Your task to perform on an android device: uninstall "Google Chat" Image 0: 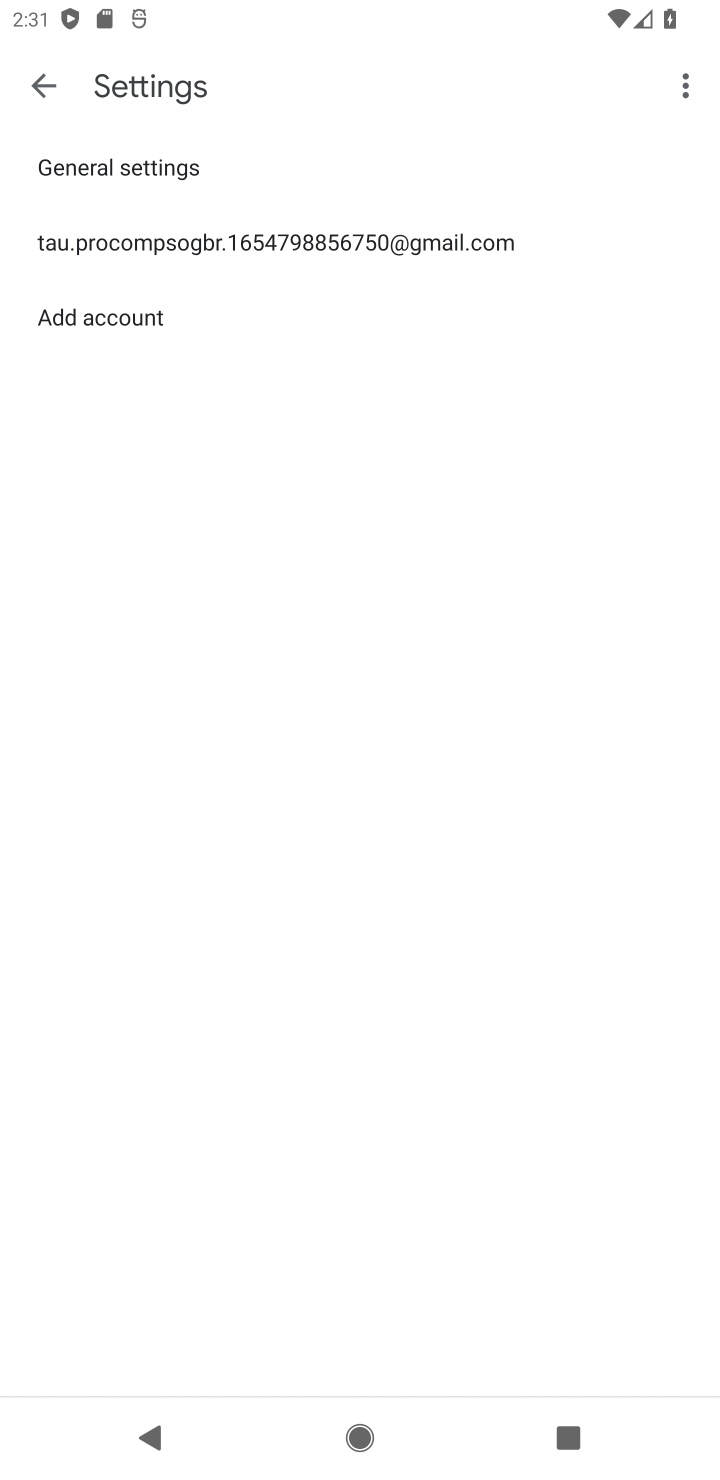
Step 0: press home button
Your task to perform on an android device: uninstall "Google Chat" Image 1: 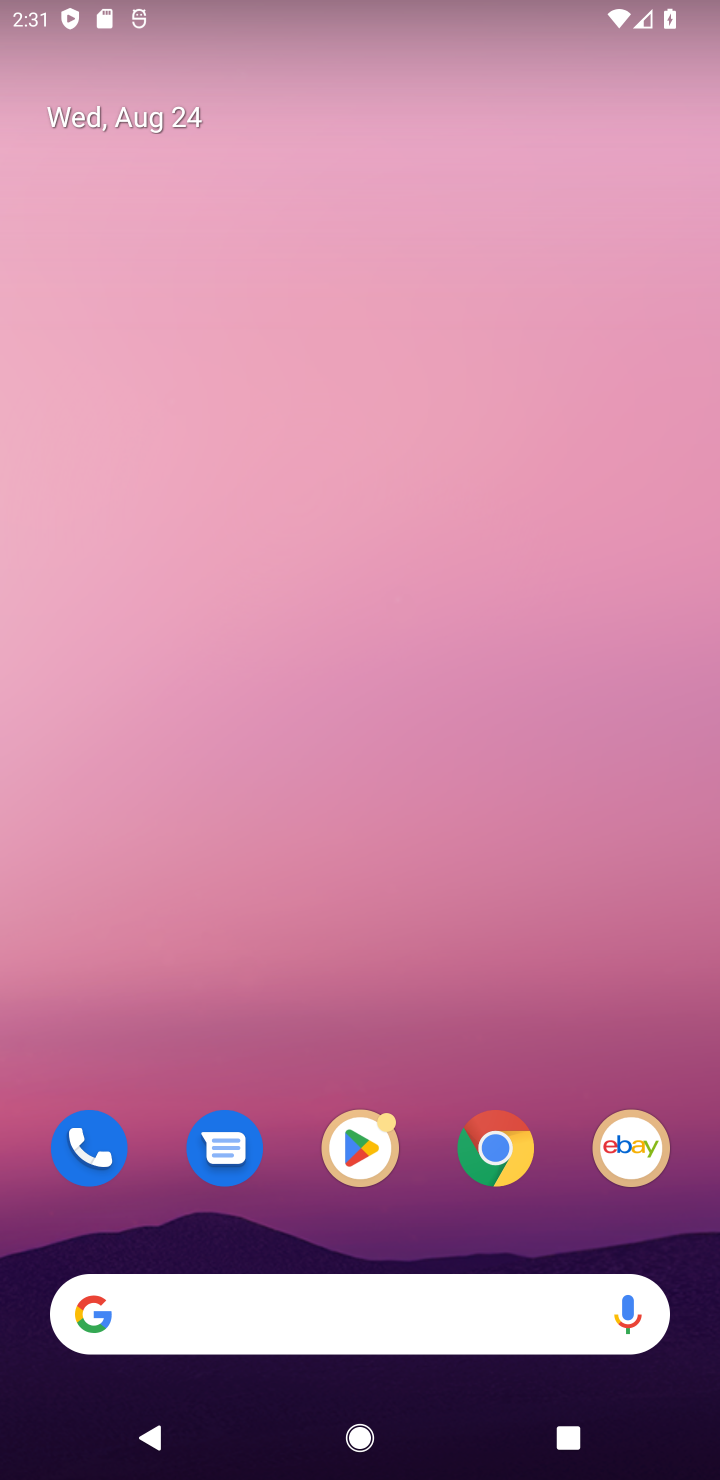
Step 1: drag from (402, 1238) to (539, 305)
Your task to perform on an android device: uninstall "Google Chat" Image 2: 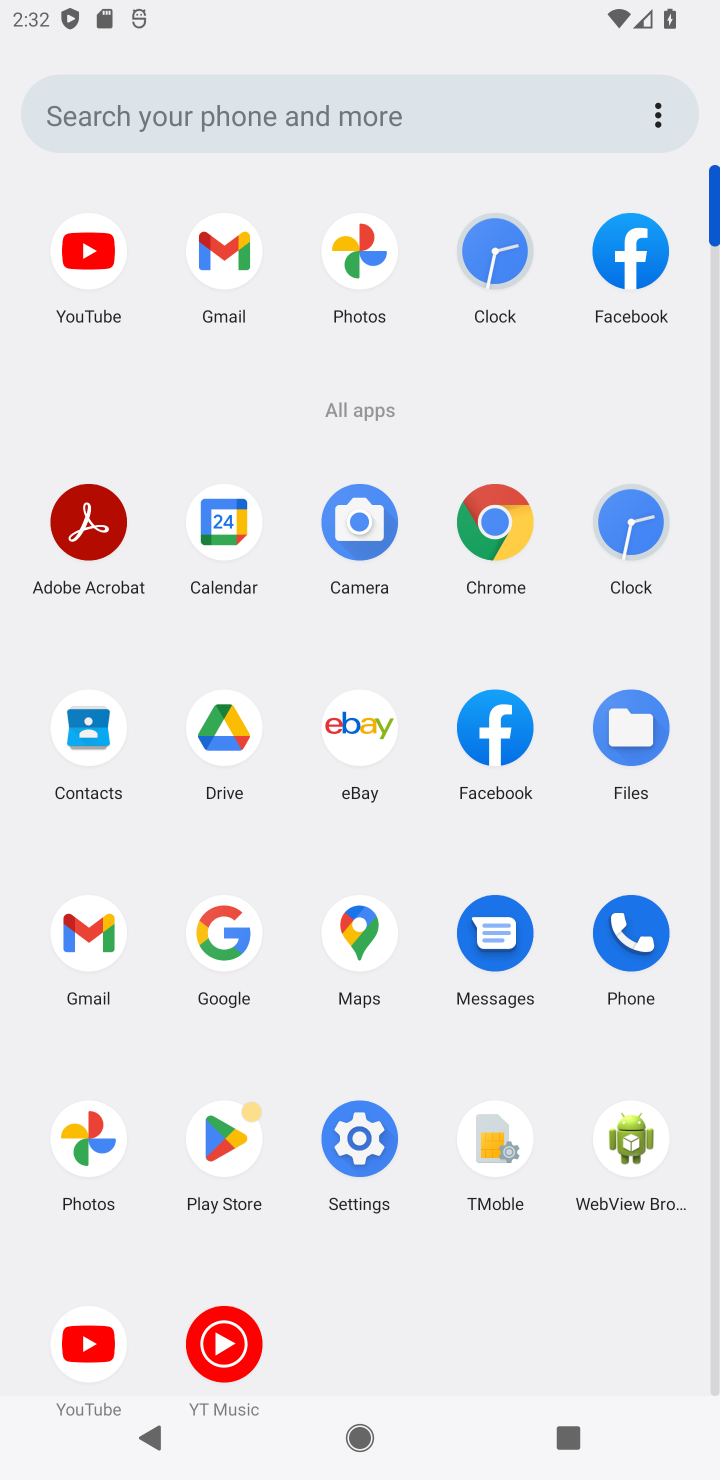
Step 2: click (230, 1161)
Your task to perform on an android device: uninstall "Google Chat" Image 3: 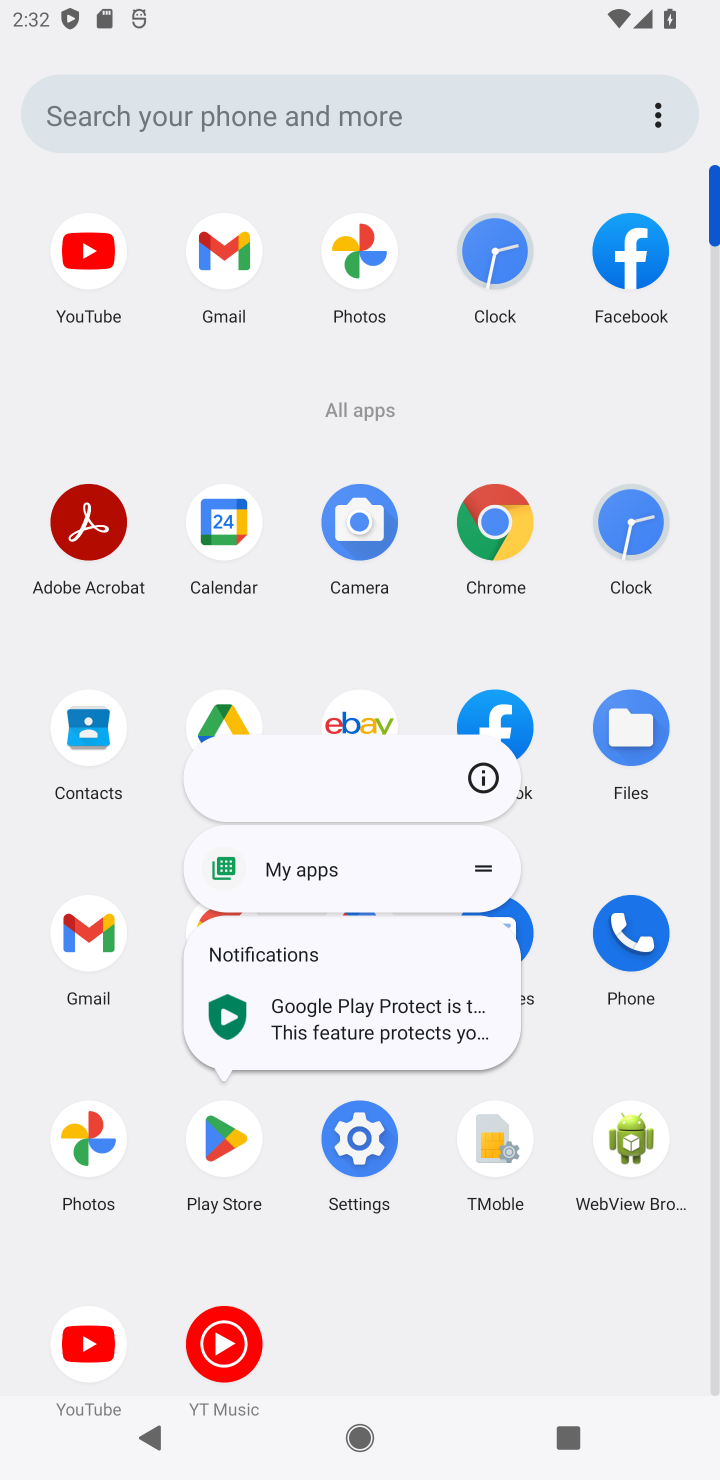
Step 3: click (351, 714)
Your task to perform on an android device: uninstall "Google Chat" Image 4: 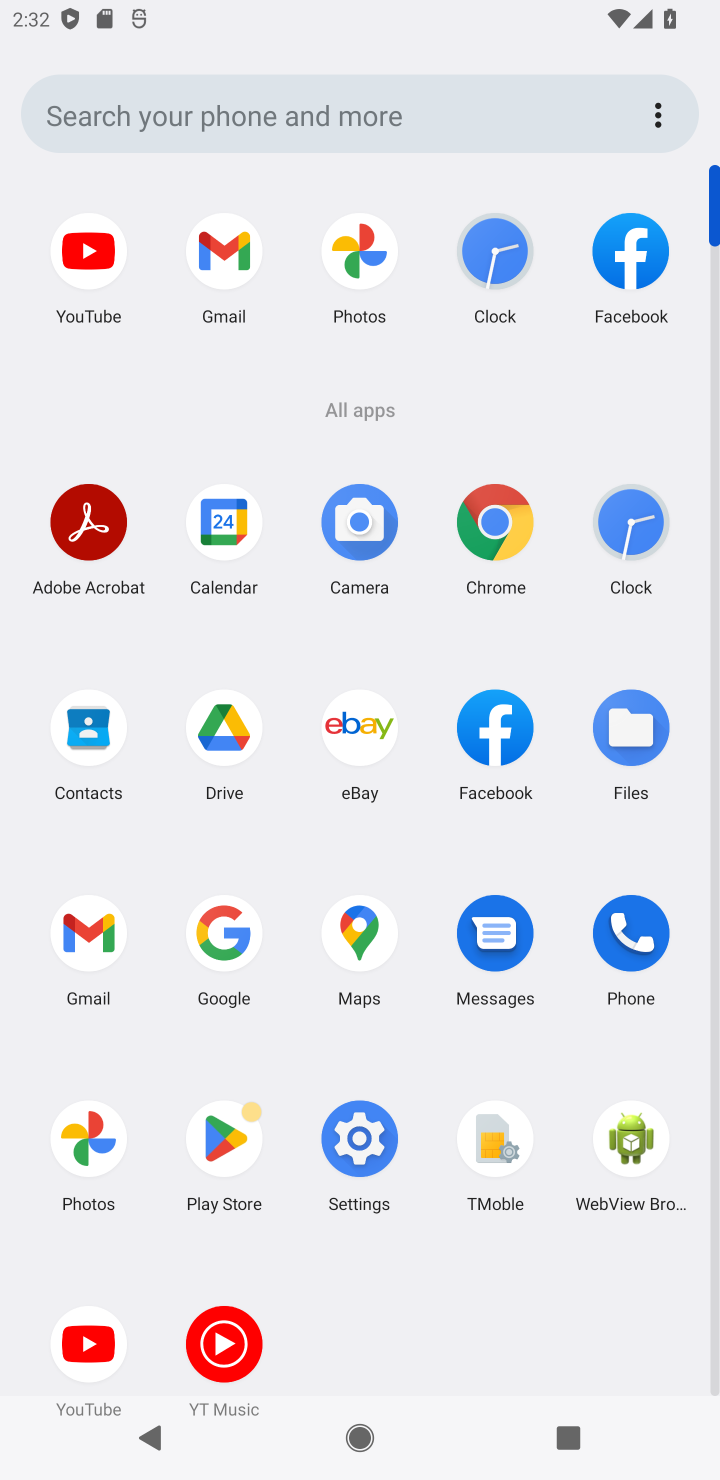
Step 4: click (351, 714)
Your task to perform on an android device: uninstall "Google Chat" Image 5: 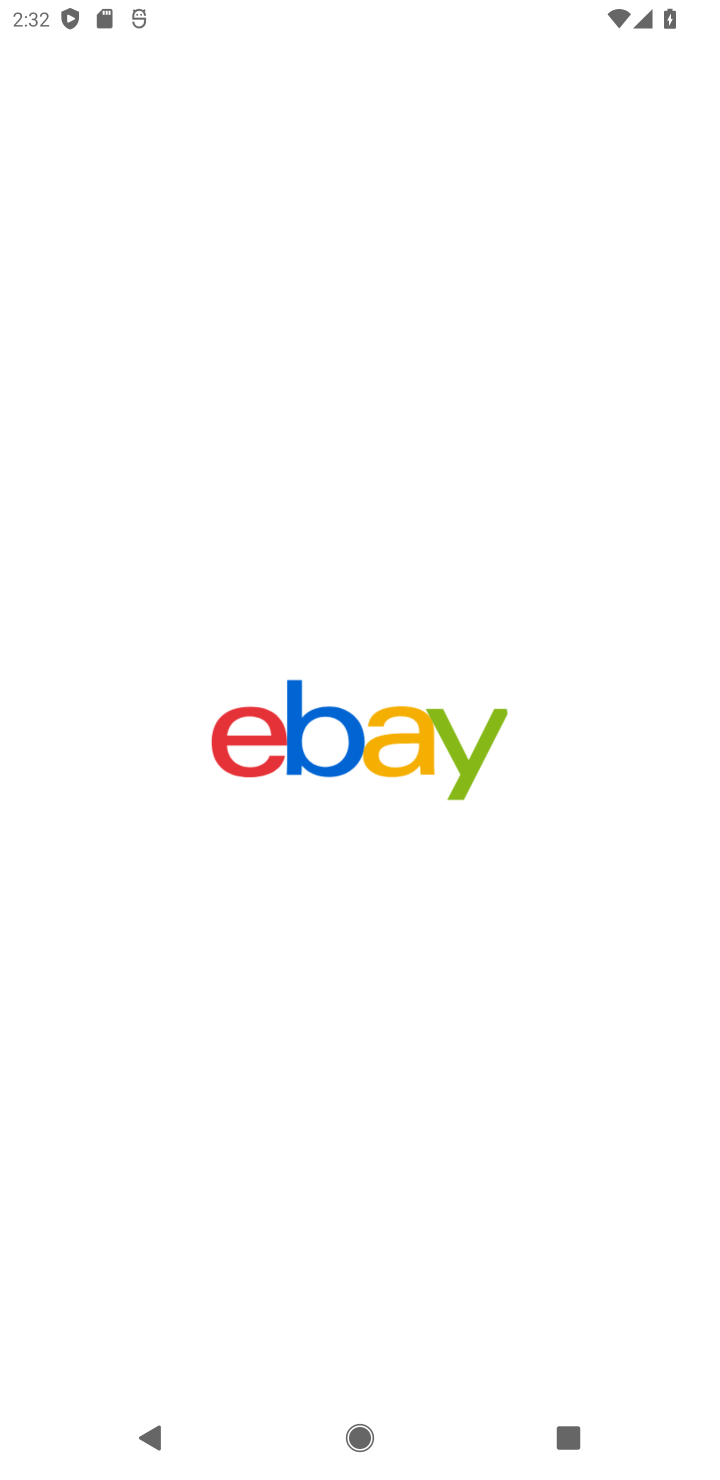
Step 5: press home button
Your task to perform on an android device: uninstall "Google Chat" Image 6: 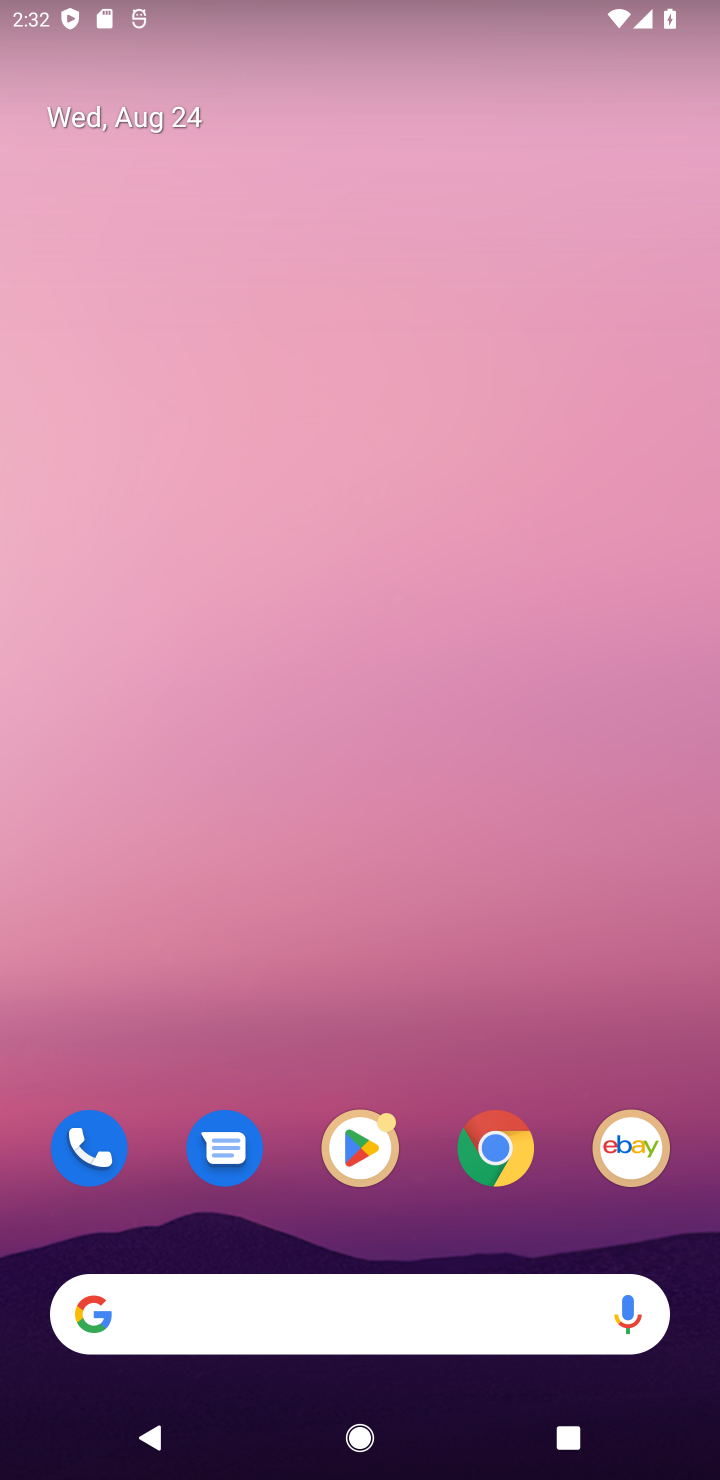
Step 6: click (335, 269)
Your task to perform on an android device: uninstall "Google Chat" Image 7: 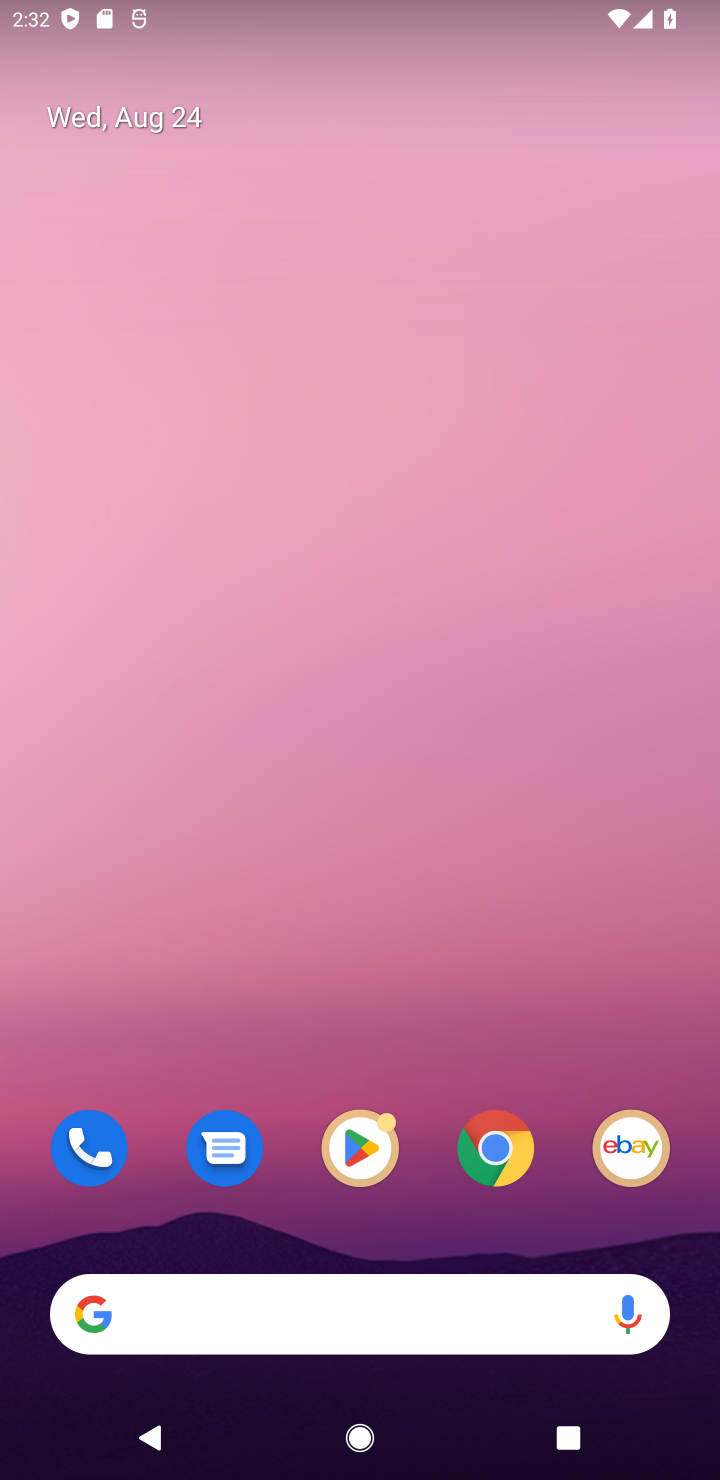
Step 7: click (319, 274)
Your task to perform on an android device: uninstall "Google Chat" Image 8: 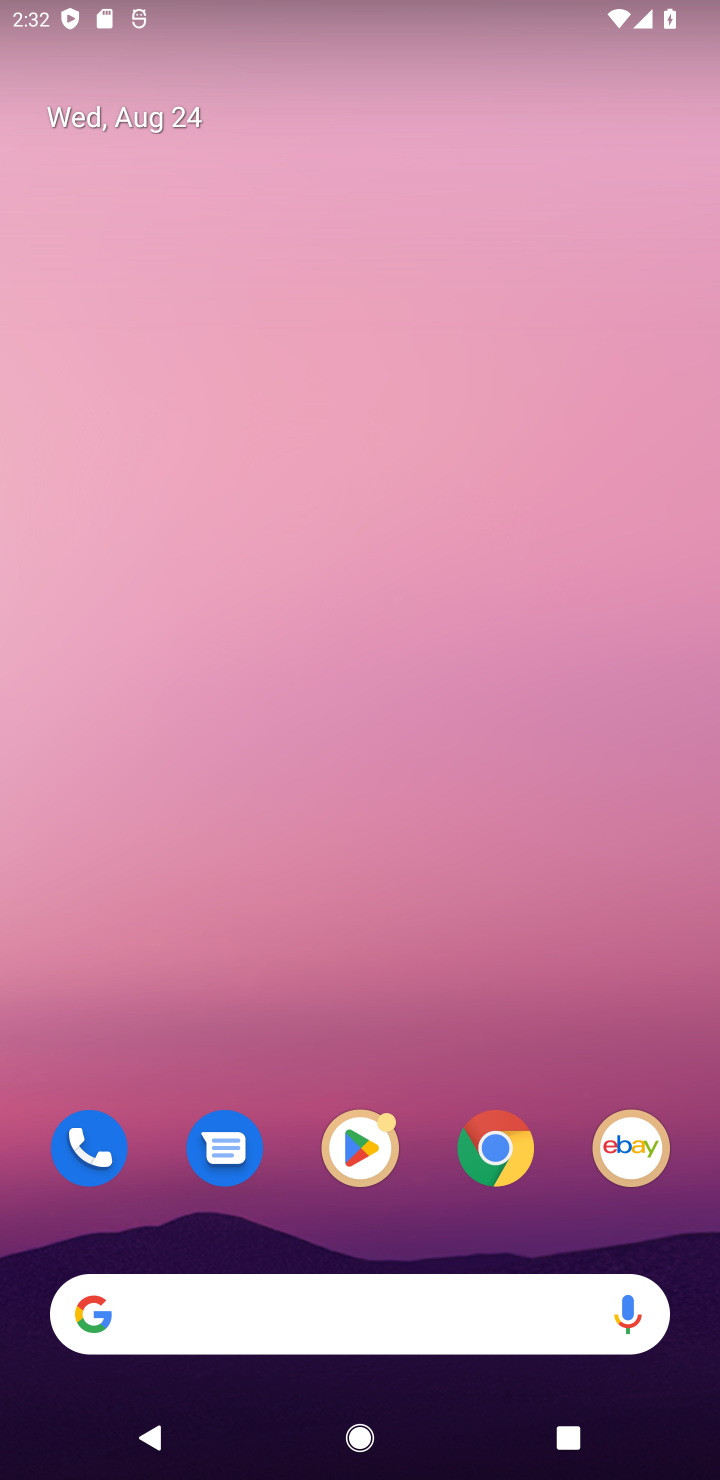
Step 8: drag from (263, 1233) to (288, 327)
Your task to perform on an android device: uninstall "Google Chat" Image 9: 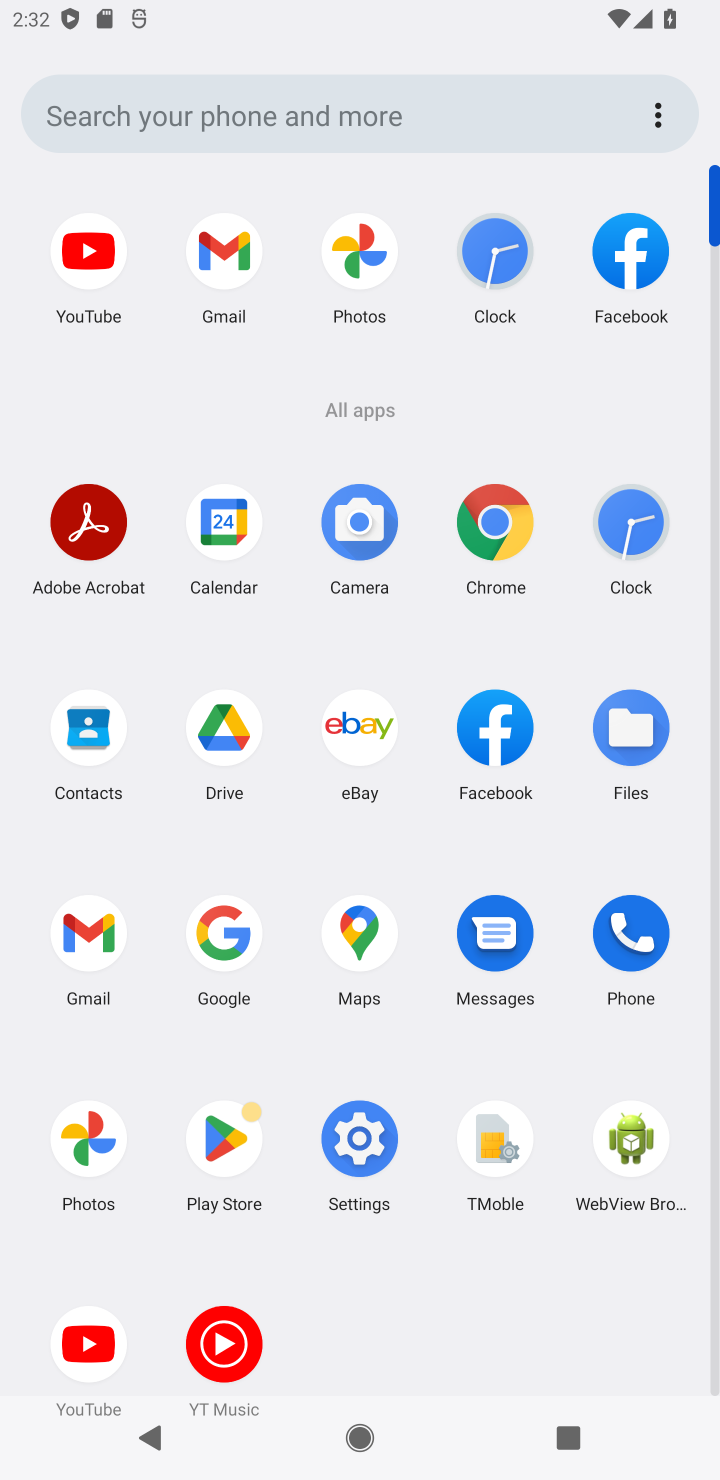
Step 9: click (214, 1126)
Your task to perform on an android device: uninstall "Google Chat" Image 10: 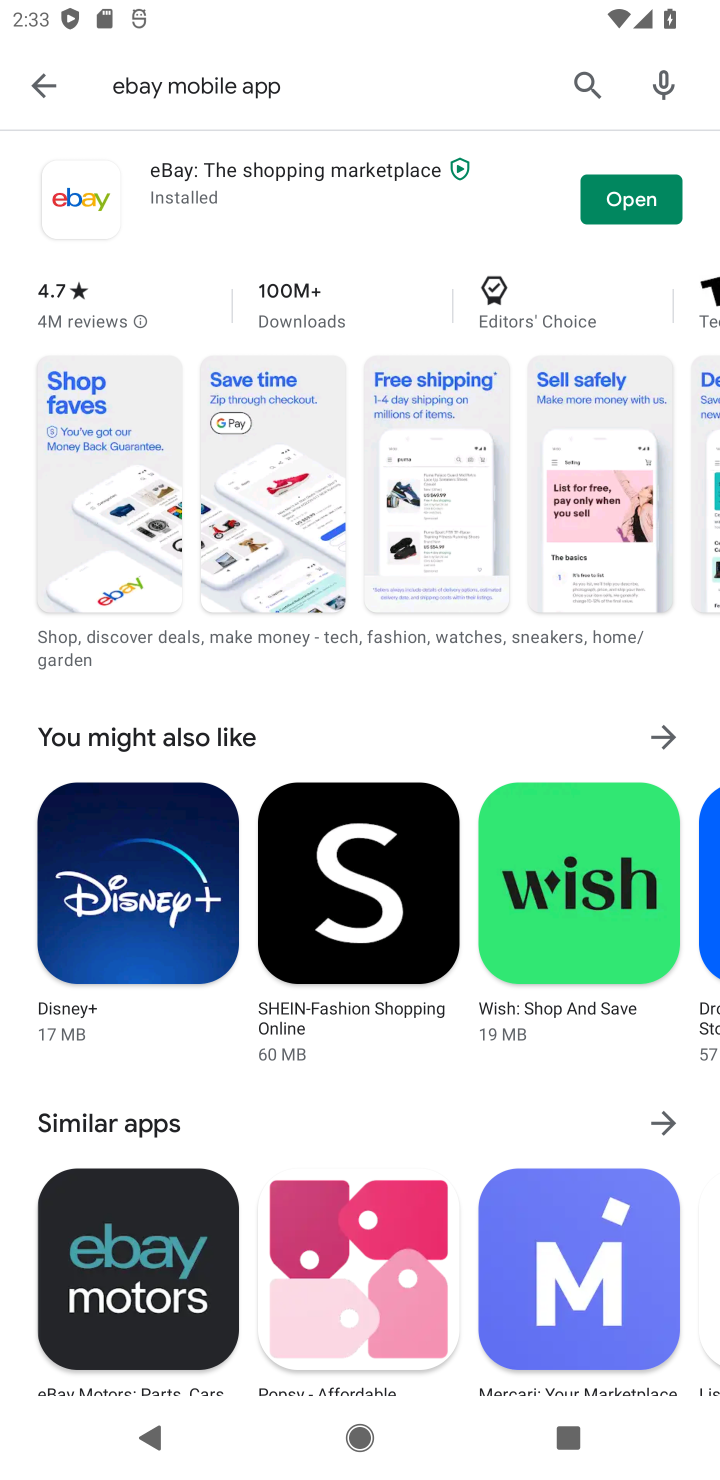
Step 10: click (24, 81)
Your task to perform on an android device: uninstall "Google Chat" Image 11: 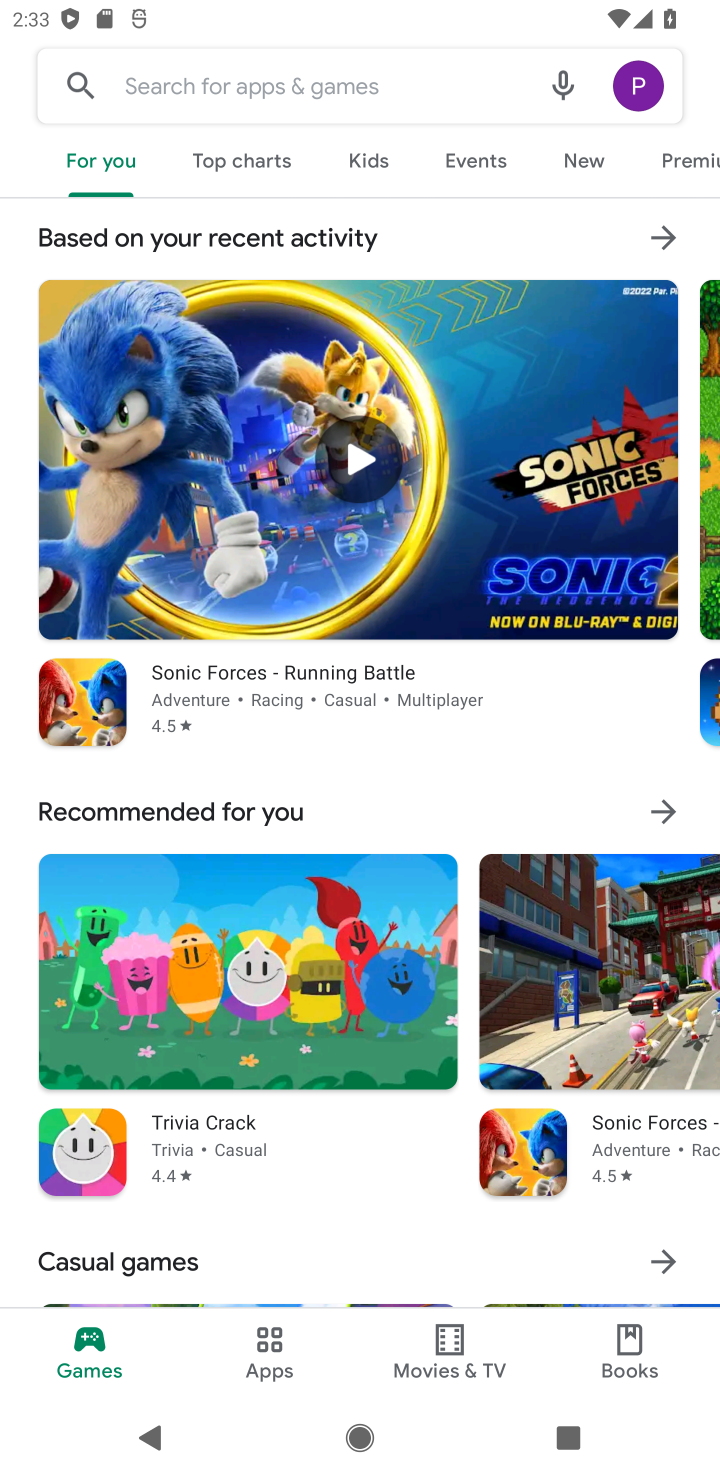
Step 11: click (439, 61)
Your task to perform on an android device: uninstall "Google Chat" Image 12: 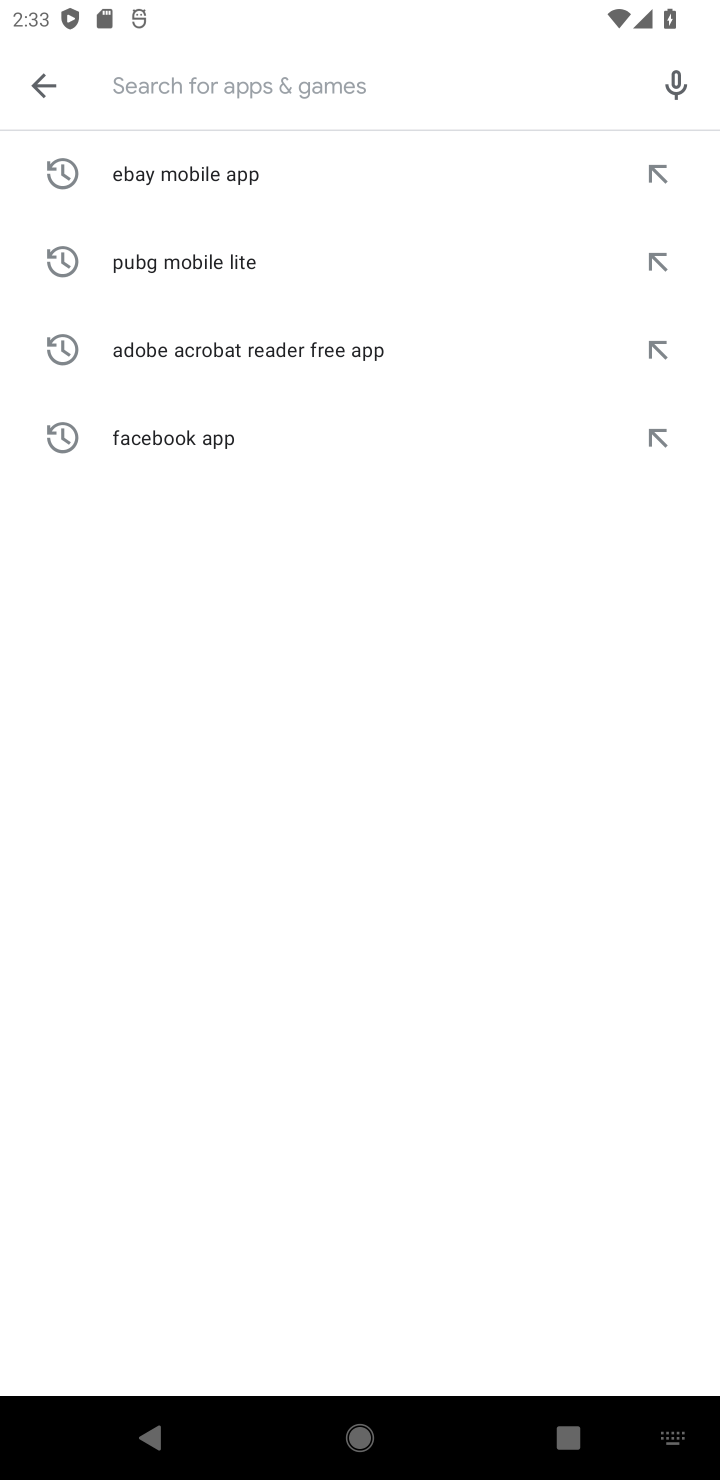
Step 12: type "Google Chat "
Your task to perform on an android device: uninstall "Google Chat" Image 13: 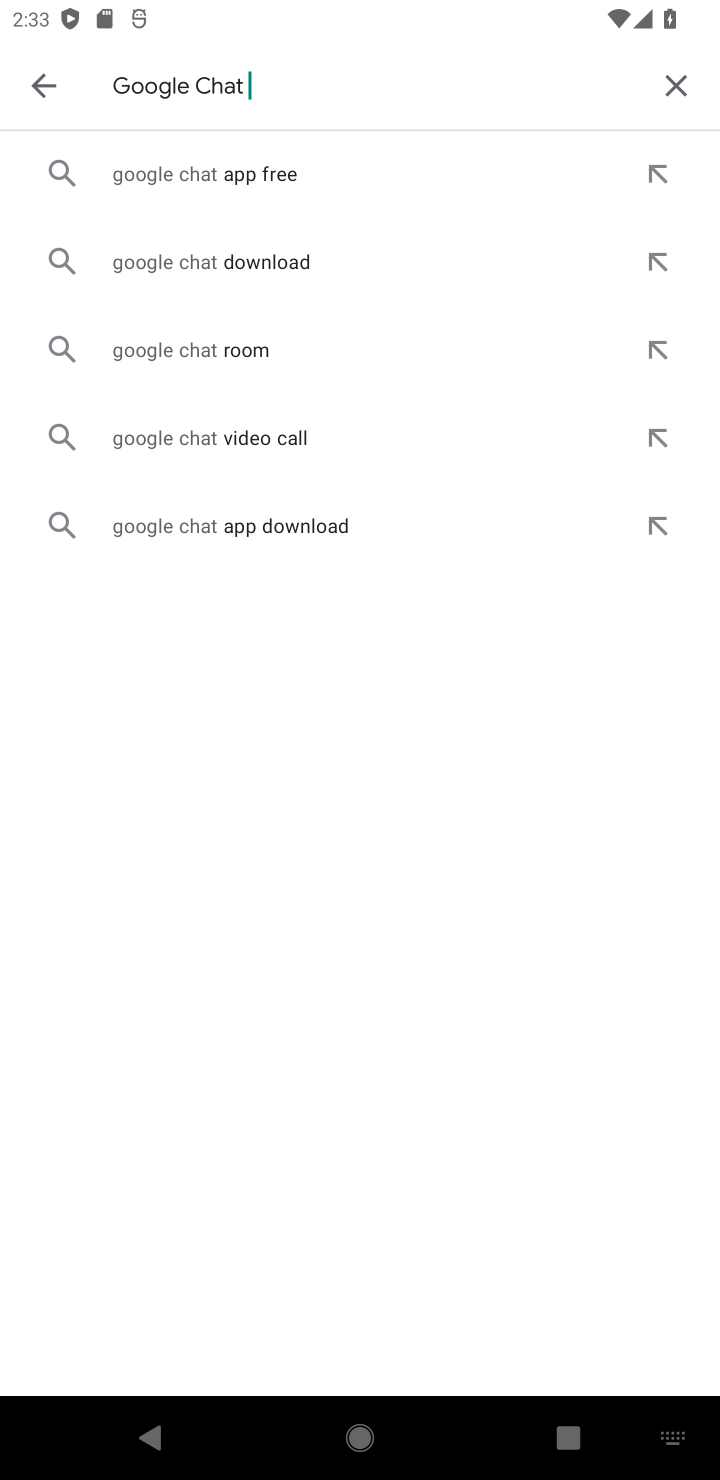
Step 13: click (204, 176)
Your task to perform on an android device: uninstall "Google Chat" Image 14: 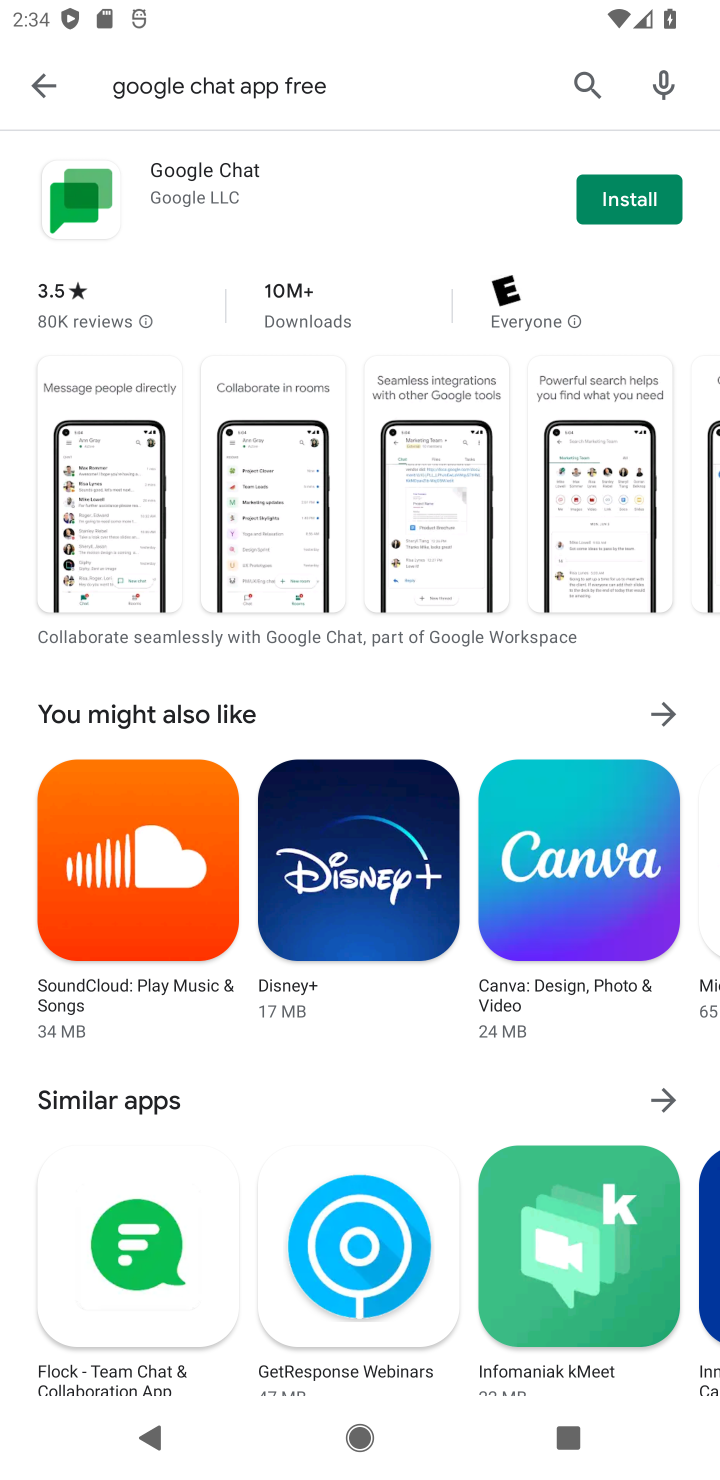
Step 14: task complete